Your task to perform on an android device: turn notification dots off Image 0: 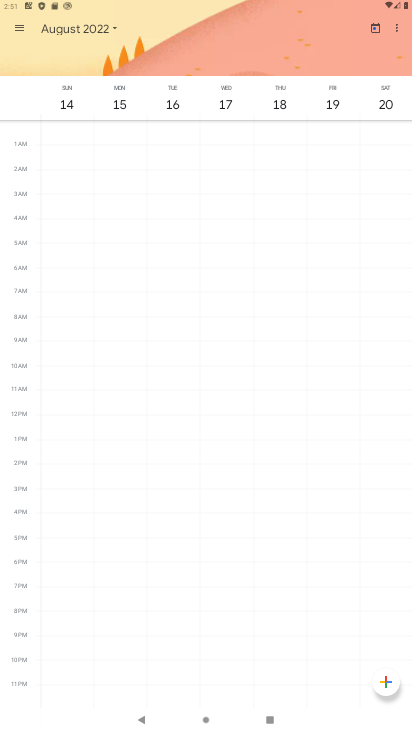
Step 0: press home button
Your task to perform on an android device: turn notification dots off Image 1: 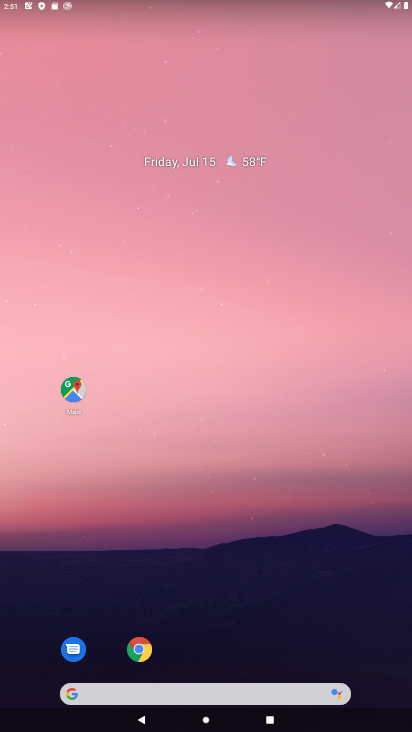
Step 1: drag from (225, 710) to (227, 179)
Your task to perform on an android device: turn notification dots off Image 2: 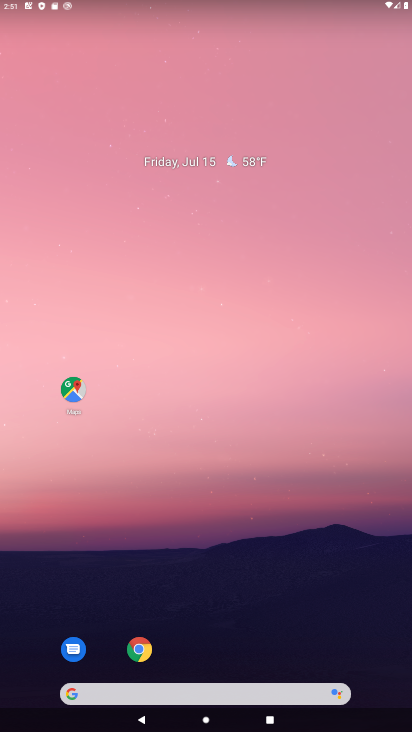
Step 2: drag from (258, 361) to (314, 137)
Your task to perform on an android device: turn notification dots off Image 3: 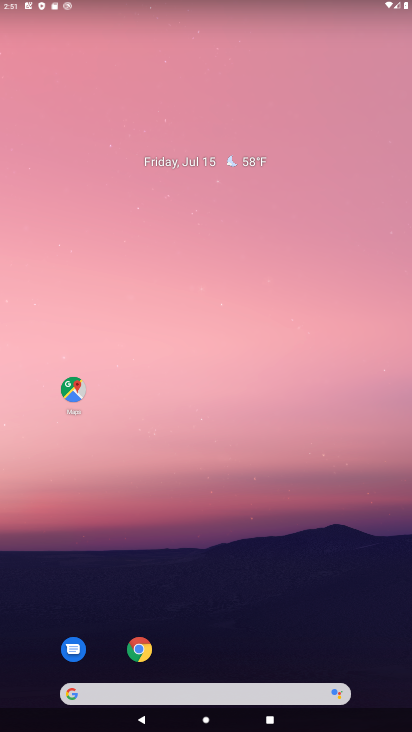
Step 3: click (240, 603)
Your task to perform on an android device: turn notification dots off Image 4: 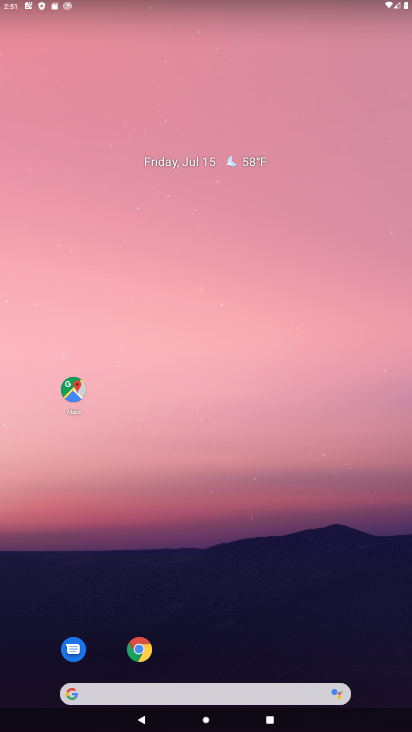
Step 4: click (245, 103)
Your task to perform on an android device: turn notification dots off Image 5: 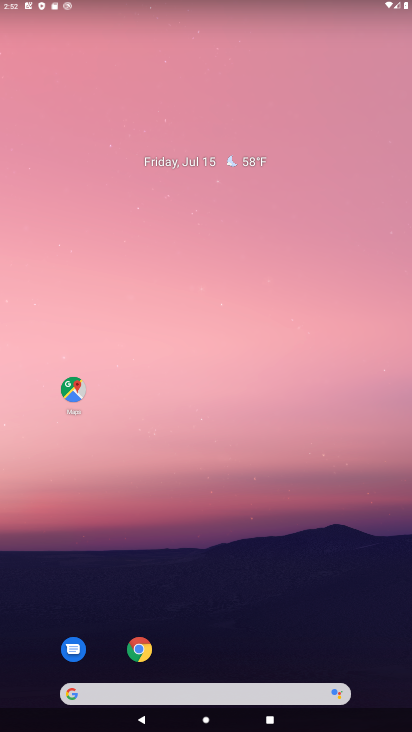
Step 5: drag from (228, 730) to (250, 167)
Your task to perform on an android device: turn notification dots off Image 6: 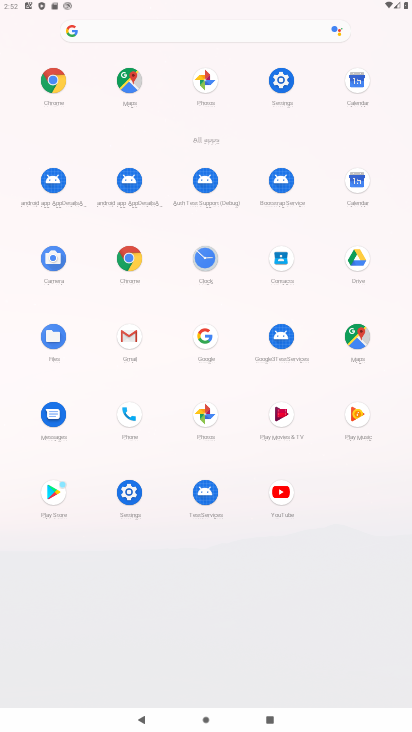
Step 6: click (280, 79)
Your task to perform on an android device: turn notification dots off Image 7: 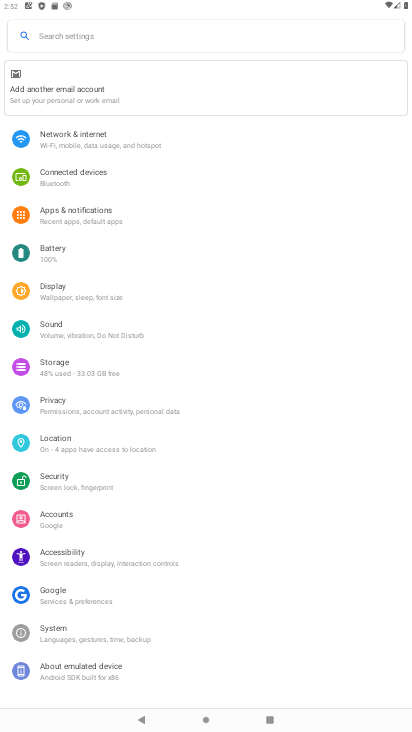
Step 7: click (85, 211)
Your task to perform on an android device: turn notification dots off Image 8: 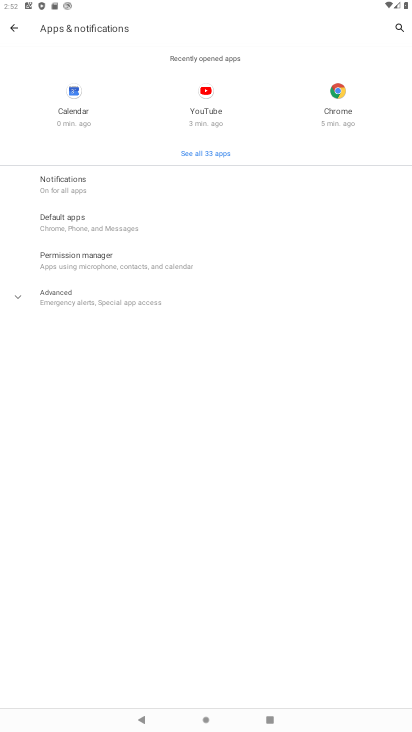
Step 8: click (72, 177)
Your task to perform on an android device: turn notification dots off Image 9: 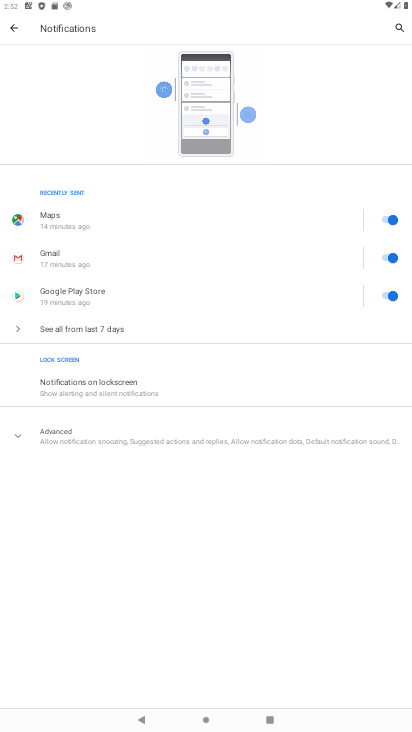
Step 9: click (126, 441)
Your task to perform on an android device: turn notification dots off Image 10: 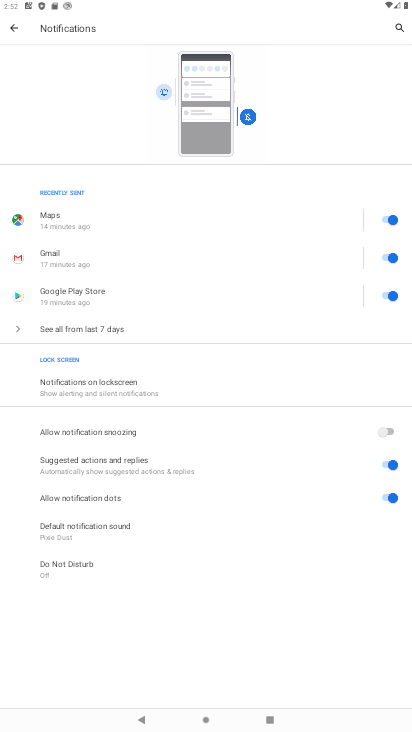
Step 10: click (396, 495)
Your task to perform on an android device: turn notification dots off Image 11: 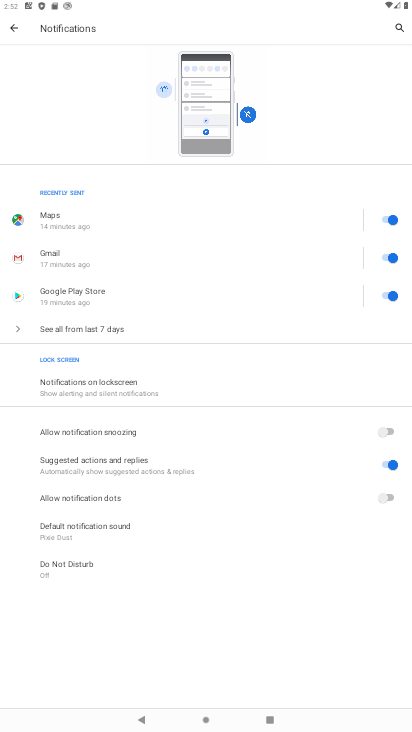
Step 11: task complete